Your task to perform on an android device: turn on the 24-hour format for clock Image 0: 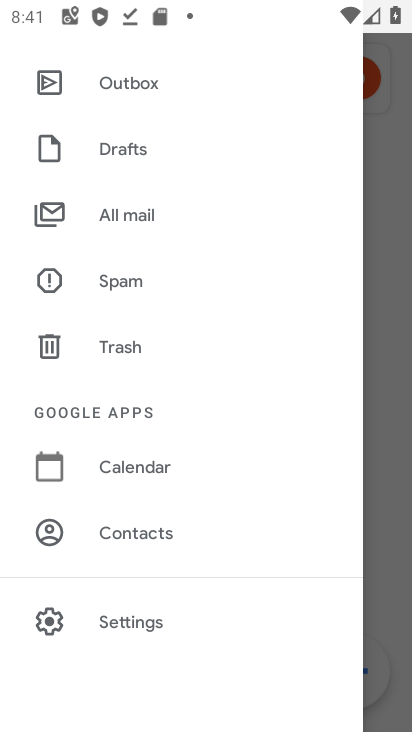
Step 0: press back button
Your task to perform on an android device: turn on the 24-hour format for clock Image 1: 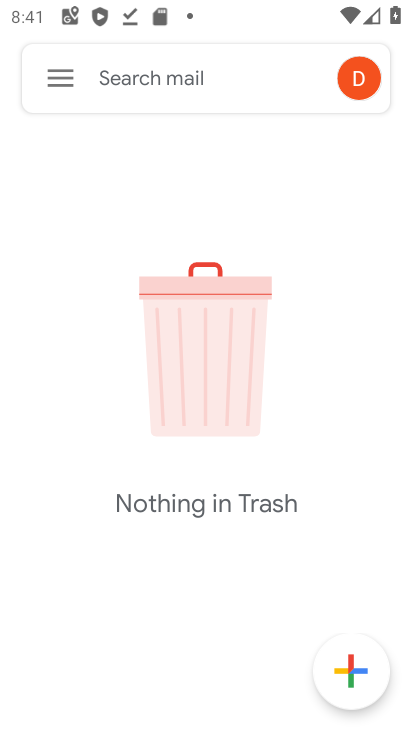
Step 1: press home button
Your task to perform on an android device: turn on the 24-hour format for clock Image 2: 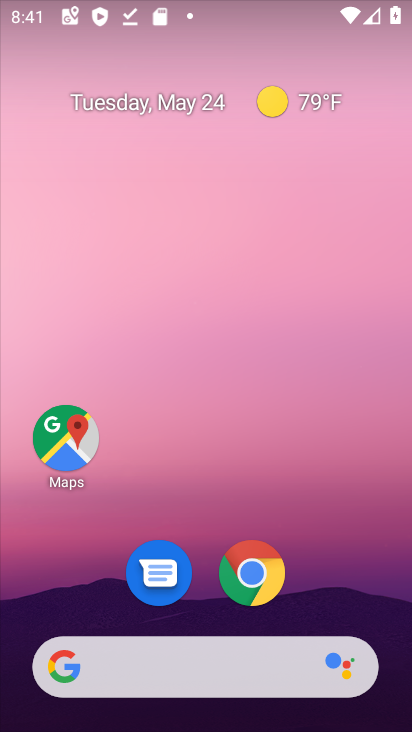
Step 2: drag from (374, 605) to (154, 143)
Your task to perform on an android device: turn on the 24-hour format for clock Image 3: 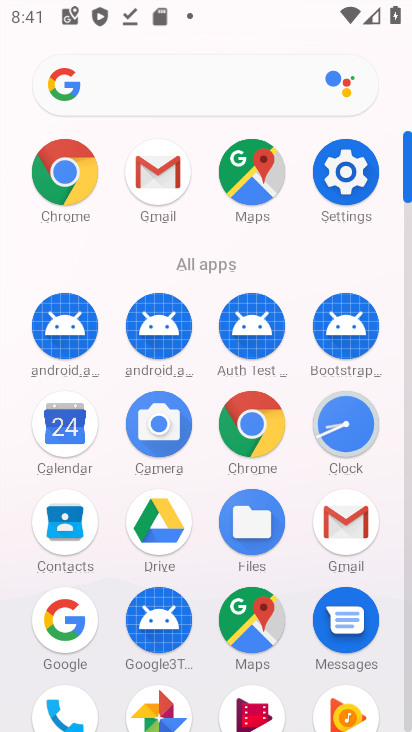
Step 3: click (343, 422)
Your task to perform on an android device: turn on the 24-hour format for clock Image 4: 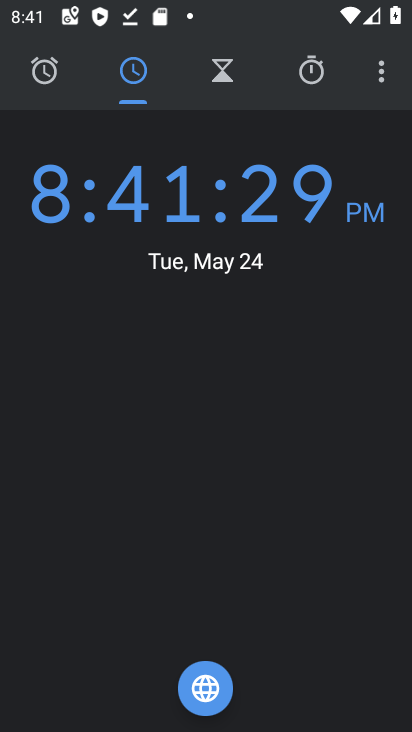
Step 4: drag from (376, 77) to (207, 141)
Your task to perform on an android device: turn on the 24-hour format for clock Image 5: 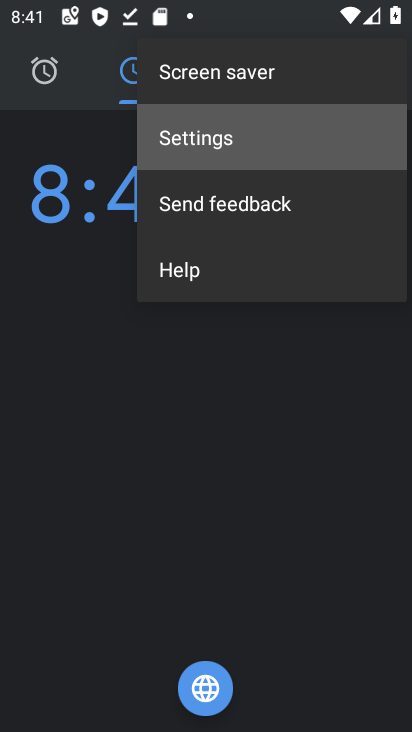
Step 5: click (207, 141)
Your task to perform on an android device: turn on the 24-hour format for clock Image 6: 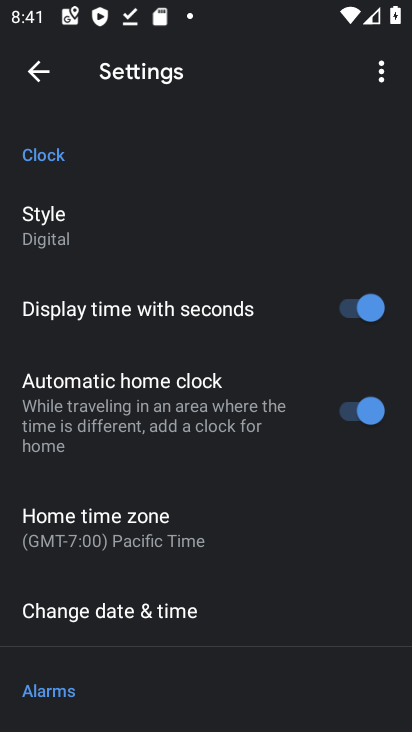
Step 6: drag from (201, 575) to (188, 237)
Your task to perform on an android device: turn on the 24-hour format for clock Image 7: 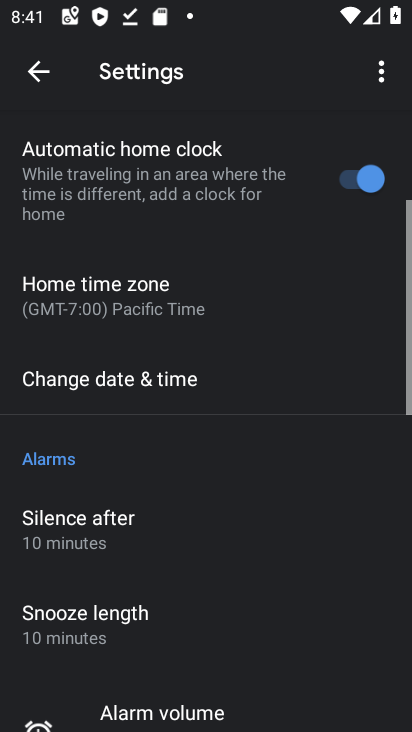
Step 7: drag from (262, 488) to (258, 208)
Your task to perform on an android device: turn on the 24-hour format for clock Image 8: 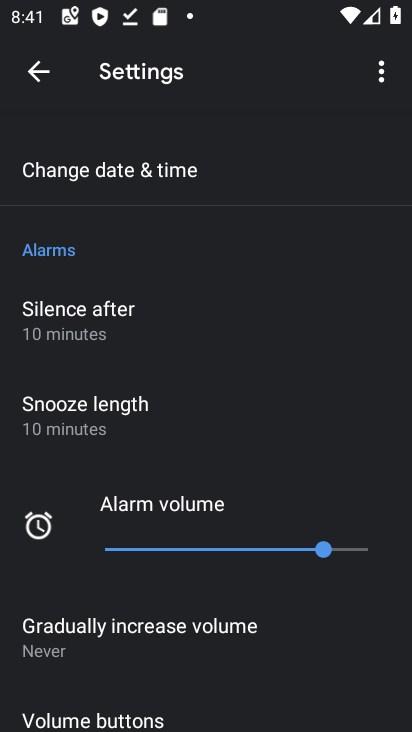
Step 8: drag from (178, 629) to (143, 197)
Your task to perform on an android device: turn on the 24-hour format for clock Image 9: 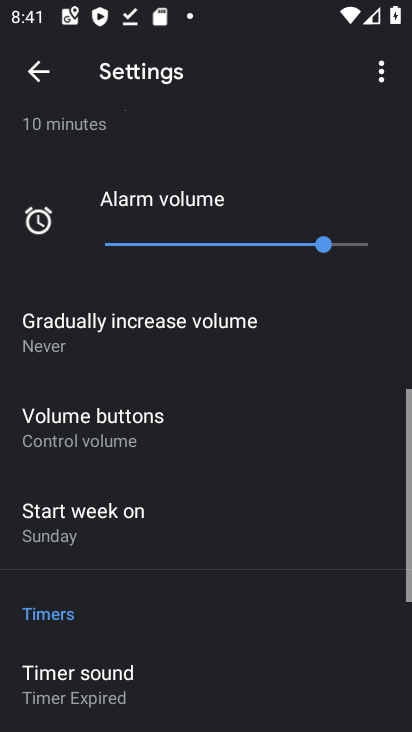
Step 9: drag from (203, 424) to (186, 233)
Your task to perform on an android device: turn on the 24-hour format for clock Image 10: 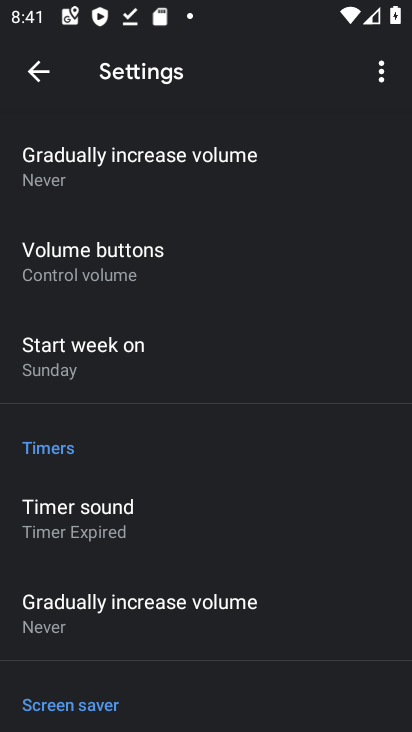
Step 10: drag from (169, 559) to (168, 239)
Your task to perform on an android device: turn on the 24-hour format for clock Image 11: 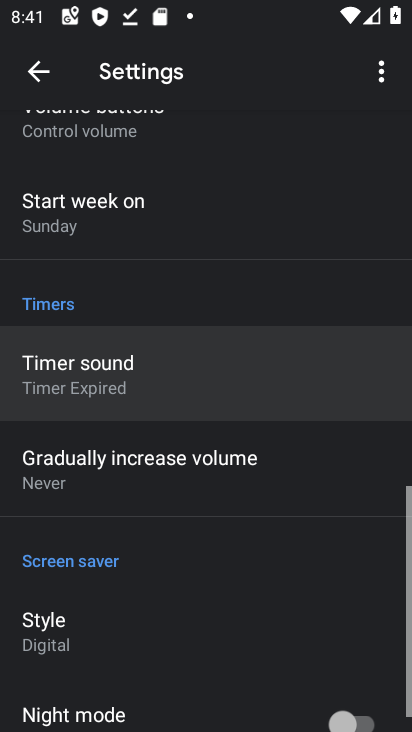
Step 11: drag from (212, 503) to (236, 196)
Your task to perform on an android device: turn on the 24-hour format for clock Image 12: 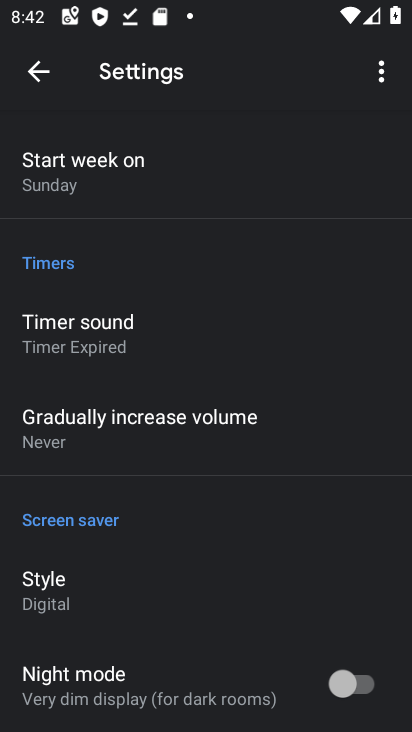
Step 12: drag from (179, 297) to (237, 497)
Your task to perform on an android device: turn on the 24-hour format for clock Image 13: 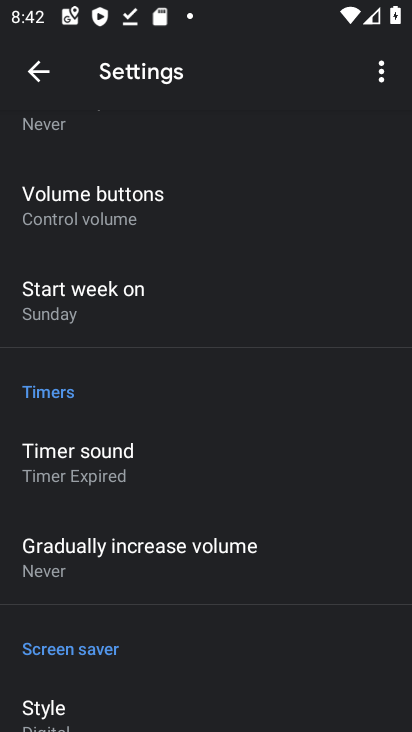
Step 13: drag from (118, 281) to (200, 586)
Your task to perform on an android device: turn on the 24-hour format for clock Image 14: 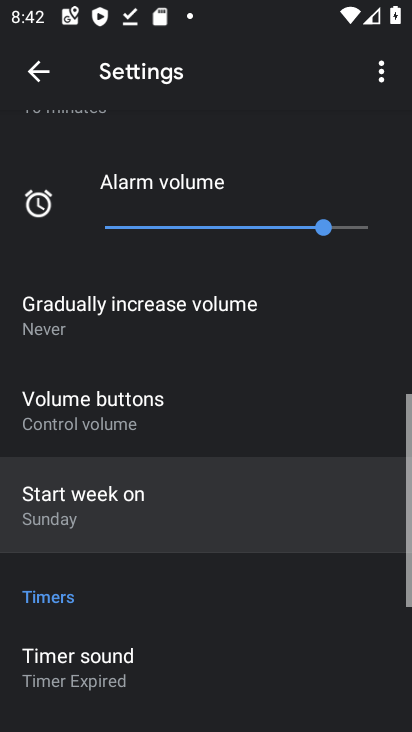
Step 14: drag from (164, 348) to (229, 606)
Your task to perform on an android device: turn on the 24-hour format for clock Image 15: 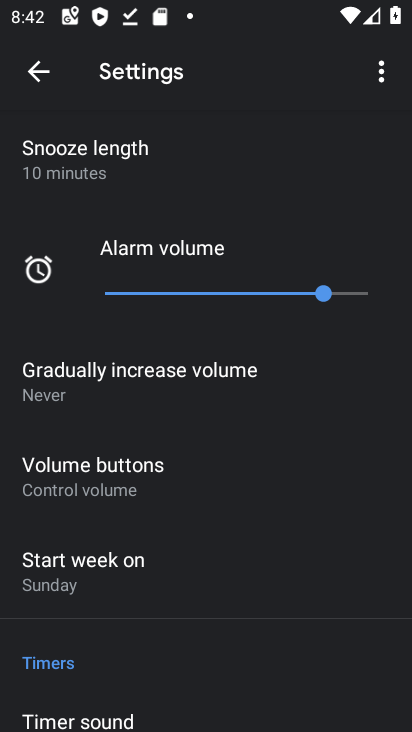
Step 15: drag from (93, 193) to (165, 560)
Your task to perform on an android device: turn on the 24-hour format for clock Image 16: 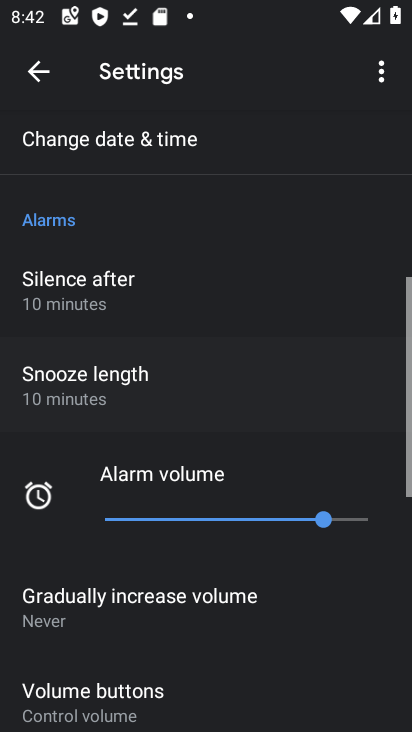
Step 16: drag from (135, 291) to (143, 654)
Your task to perform on an android device: turn on the 24-hour format for clock Image 17: 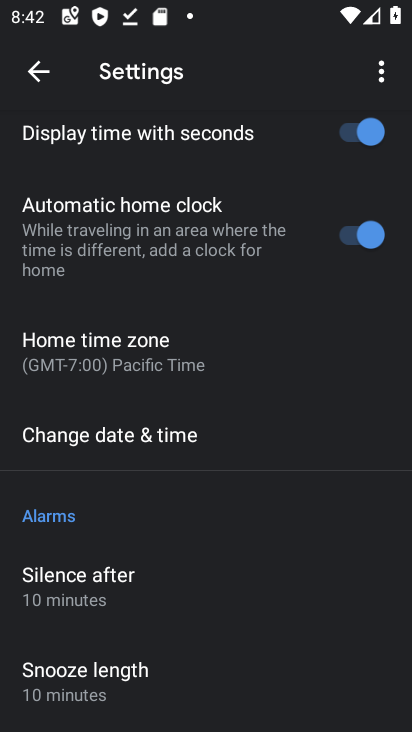
Step 17: click (147, 438)
Your task to perform on an android device: turn on the 24-hour format for clock Image 18: 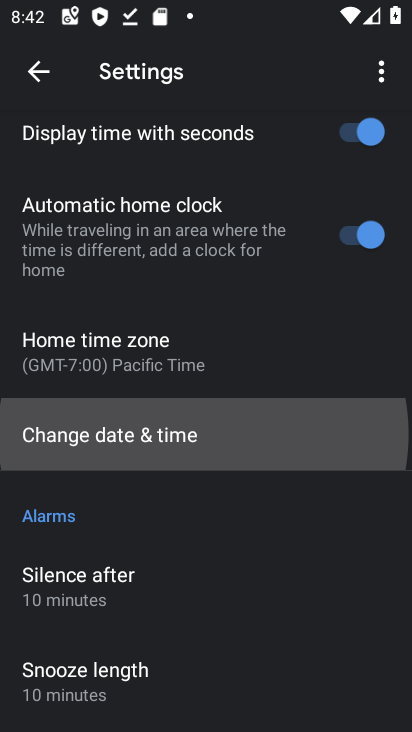
Step 18: click (147, 438)
Your task to perform on an android device: turn on the 24-hour format for clock Image 19: 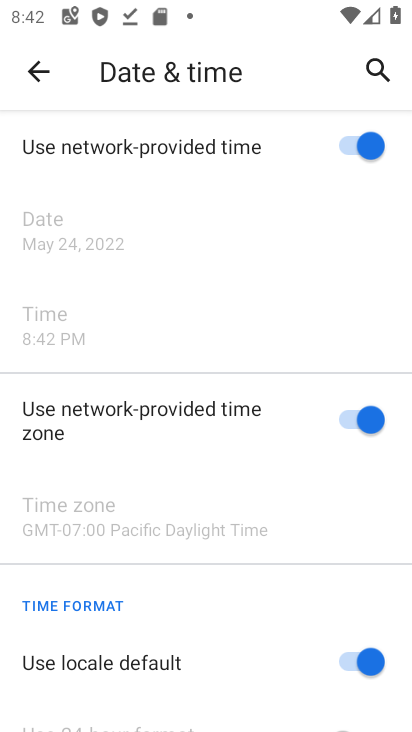
Step 19: drag from (231, 644) to (180, 353)
Your task to perform on an android device: turn on the 24-hour format for clock Image 20: 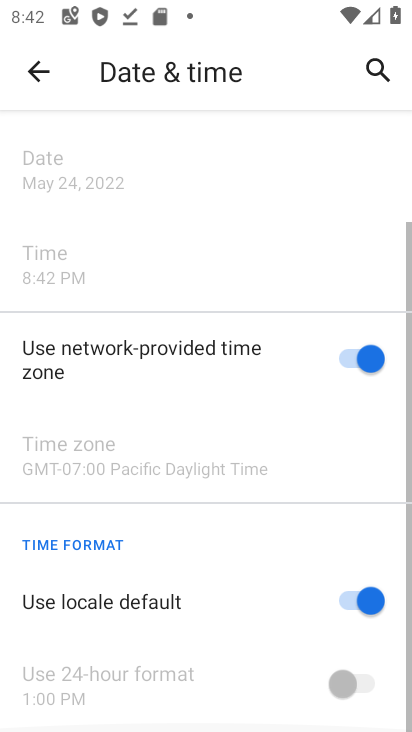
Step 20: drag from (210, 586) to (213, 273)
Your task to perform on an android device: turn on the 24-hour format for clock Image 21: 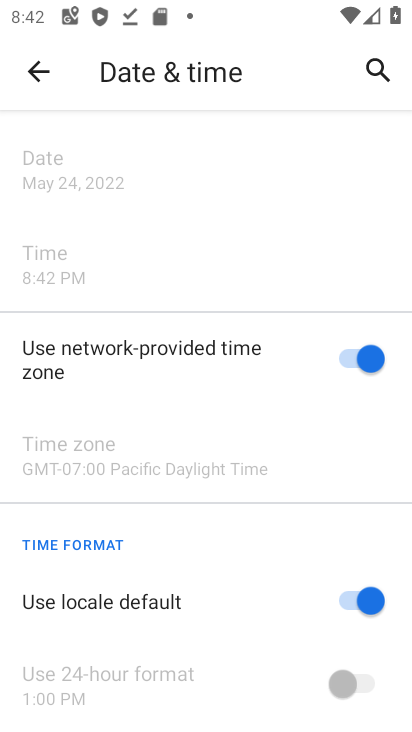
Step 21: click (375, 586)
Your task to perform on an android device: turn on the 24-hour format for clock Image 22: 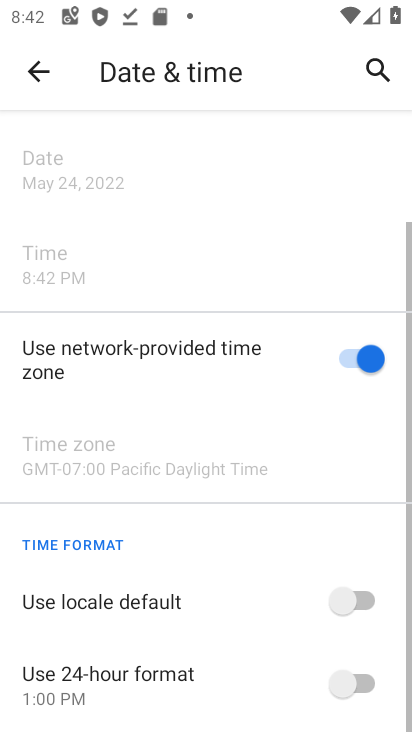
Step 22: click (350, 679)
Your task to perform on an android device: turn on the 24-hour format for clock Image 23: 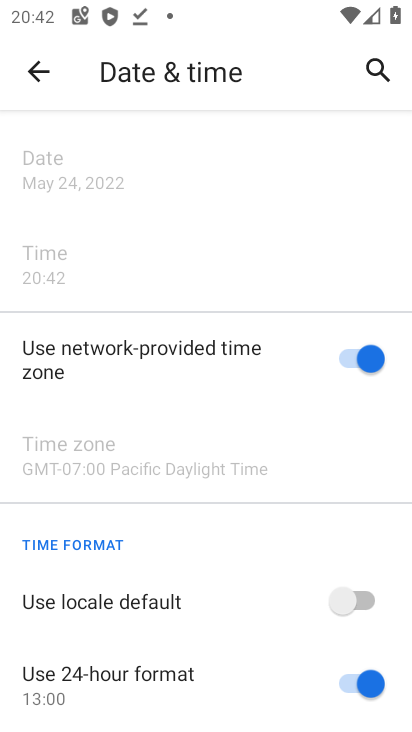
Step 23: task complete